Your task to perform on an android device: What's the weather going to be this weekend? Image 0: 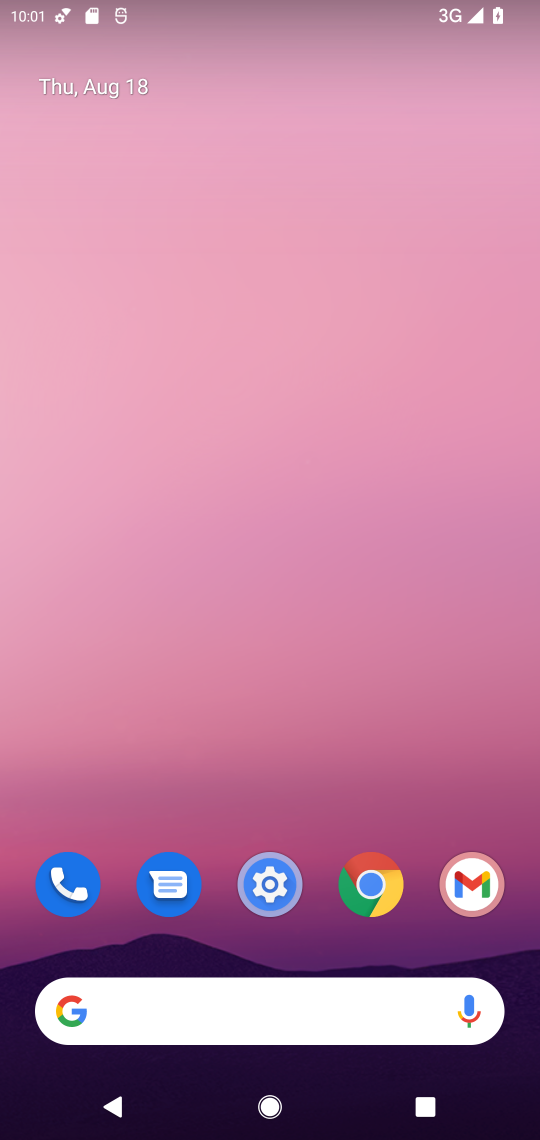
Step 0: click (93, 79)
Your task to perform on an android device: What's the weather going to be this weekend? Image 1: 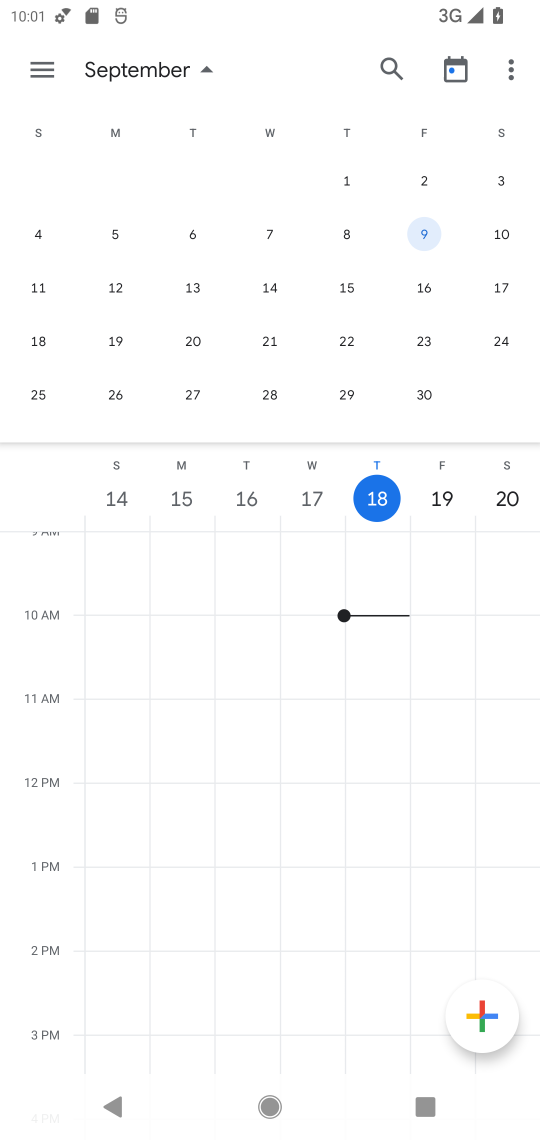
Step 1: press back button
Your task to perform on an android device: What's the weather going to be this weekend? Image 2: 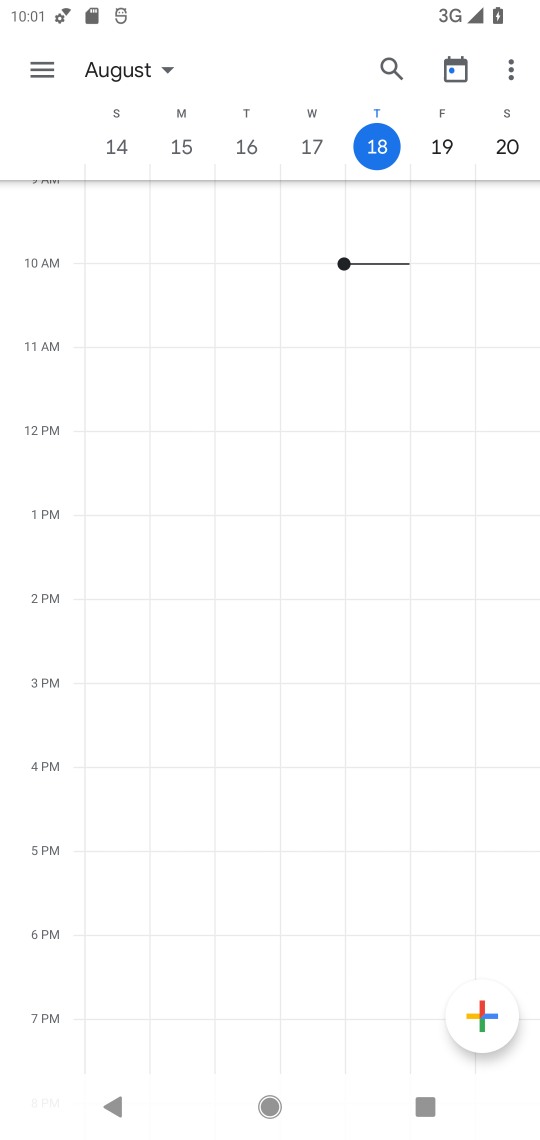
Step 2: press back button
Your task to perform on an android device: What's the weather going to be this weekend? Image 3: 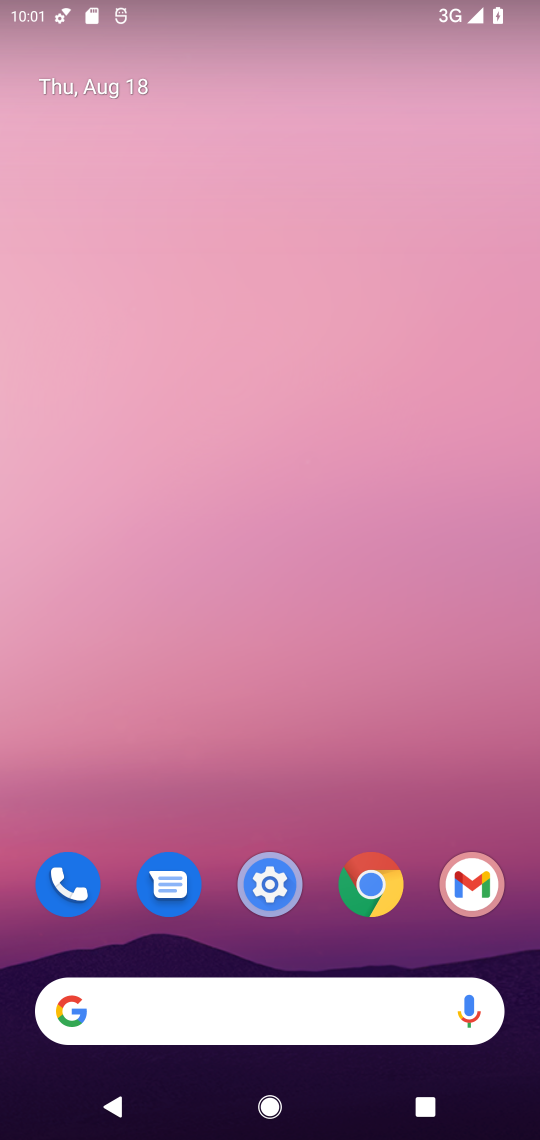
Step 3: click (360, 985)
Your task to perform on an android device: What's the weather going to be this weekend? Image 4: 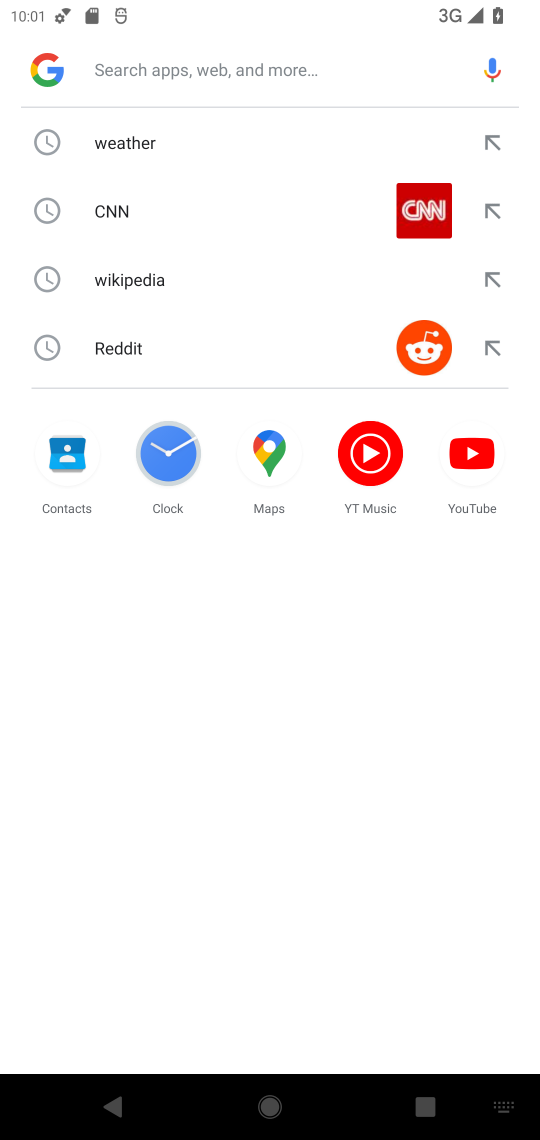
Step 4: click (104, 151)
Your task to perform on an android device: What's the weather going to be this weekend? Image 5: 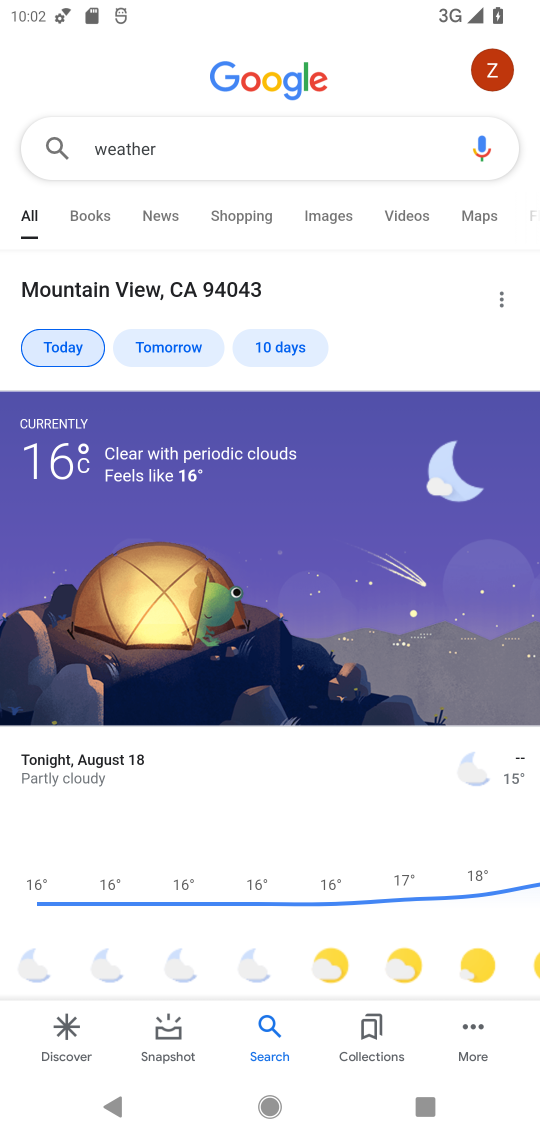
Step 5: click (298, 353)
Your task to perform on an android device: What's the weather going to be this weekend? Image 6: 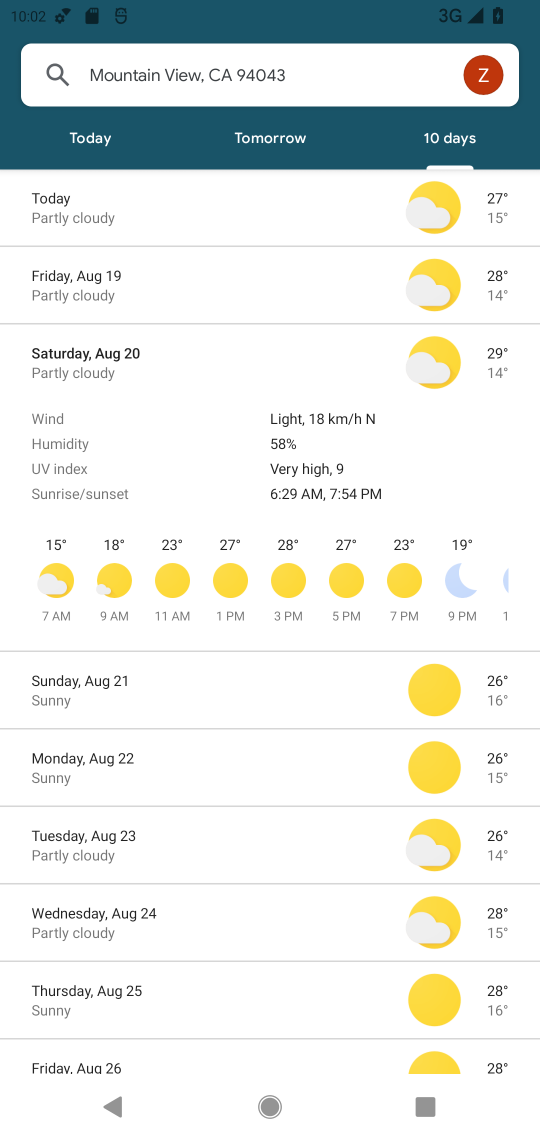
Step 6: task complete